Your task to perform on an android device: turn off javascript in the chrome app Image 0: 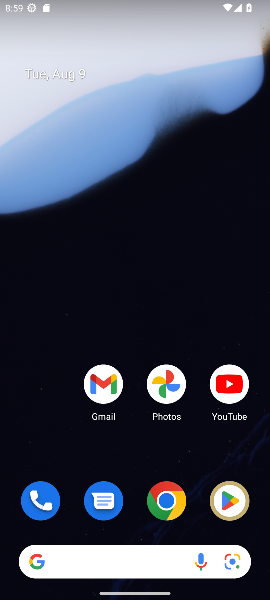
Step 0: press home button
Your task to perform on an android device: turn off javascript in the chrome app Image 1: 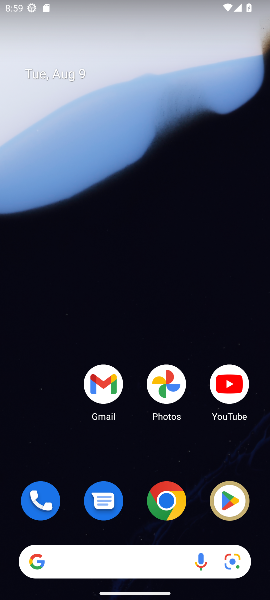
Step 1: click (164, 498)
Your task to perform on an android device: turn off javascript in the chrome app Image 2: 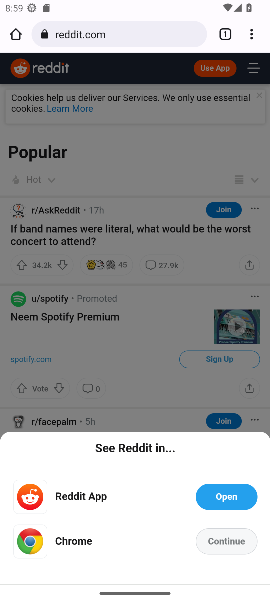
Step 2: click (226, 540)
Your task to perform on an android device: turn off javascript in the chrome app Image 3: 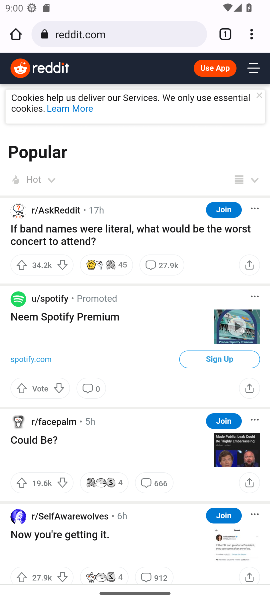
Step 3: click (255, 34)
Your task to perform on an android device: turn off javascript in the chrome app Image 4: 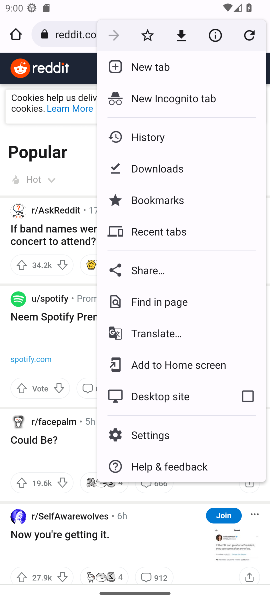
Step 4: click (151, 438)
Your task to perform on an android device: turn off javascript in the chrome app Image 5: 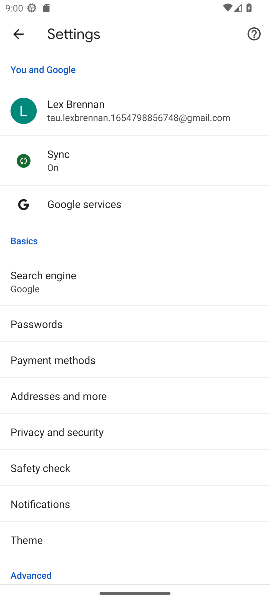
Step 5: drag from (101, 502) to (125, 210)
Your task to perform on an android device: turn off javascript in the chrome app Image 6: 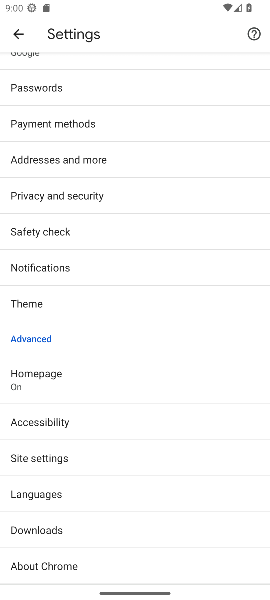
Step 6: drag from (116, 448) to (134, 337)
Your task to perform on an android device: turn off javascript in the chrome app Image 7: 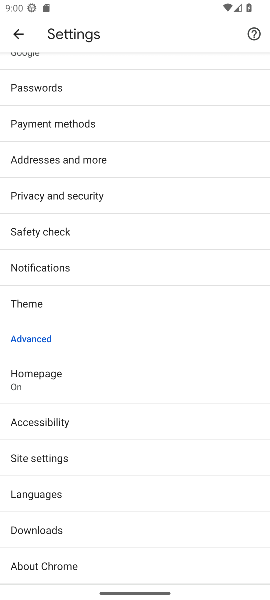
Step 7: click (31, 455)
Your task to perform on an android device: turn off javascript in the chrome app Image 8: 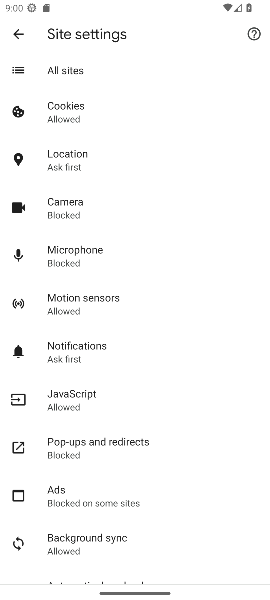
Step 8: click (68, 404)
Your task to perform on an android device: turn off javascript in the chrome app Image 9: 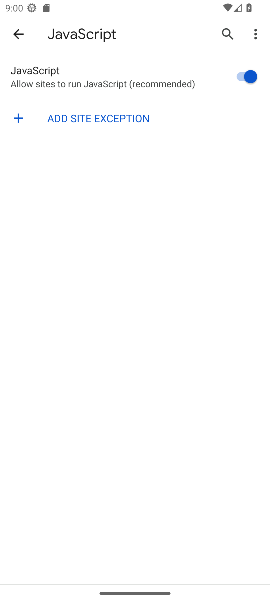
Step 9: click (245, 71)
Your task to perform on an android device: turn off javascript in the chrome app Image 10: 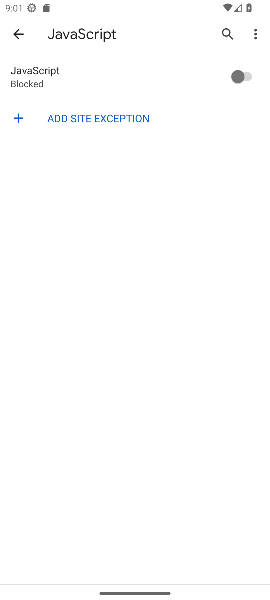
Step 10: task complete